Your task to perform on an android device: check out phone information Image 0: 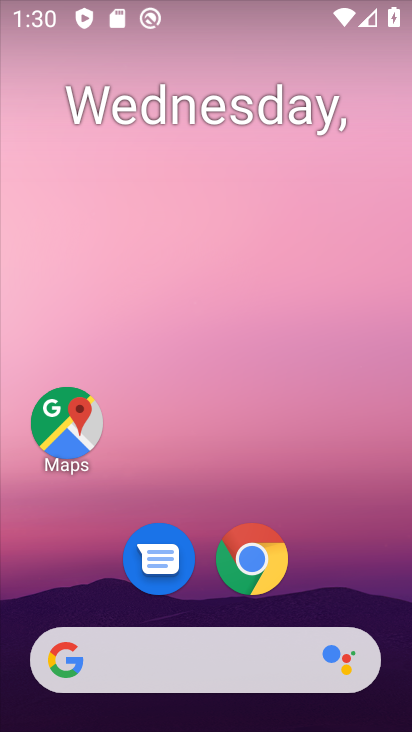
Step 0: drag from (221, 622) to (244, 152)
Your task to perform on an android device: check out phone information Image 1: 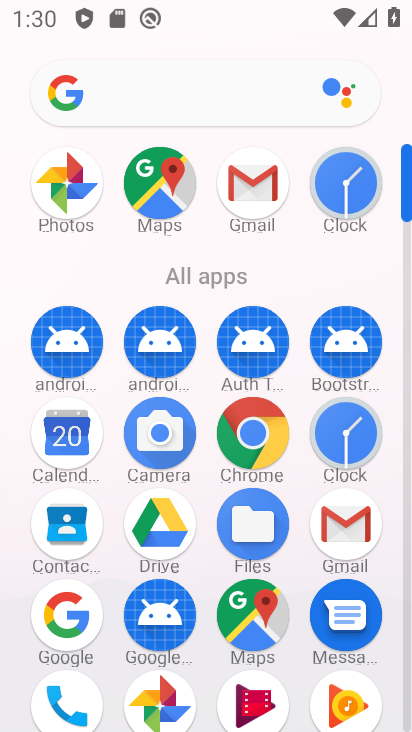
Step 1: drag from (223, 595) to (140, 5)
Your task to perform on an android device: check out phone information Image 2: 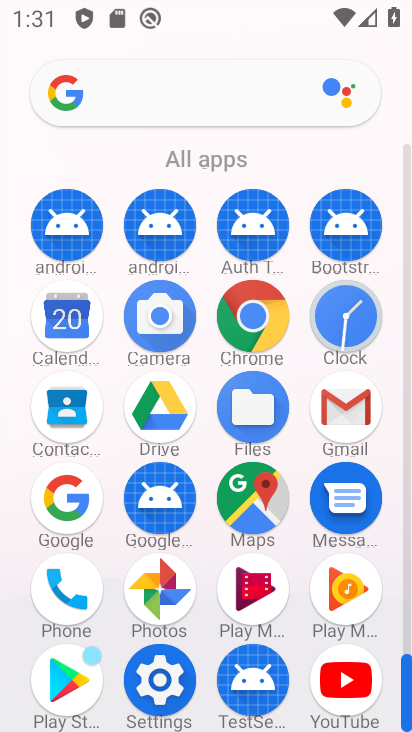
Step 2: click (182, 686)
Your task to perform on an android device: check out phone information Image 3: 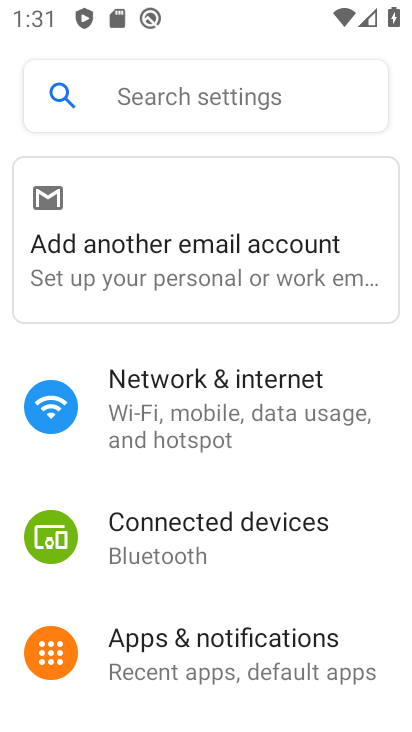
Step 3: drag from (228, 650) to (180, 94)
Your task to perform on an android device: check out phone information Image 4: 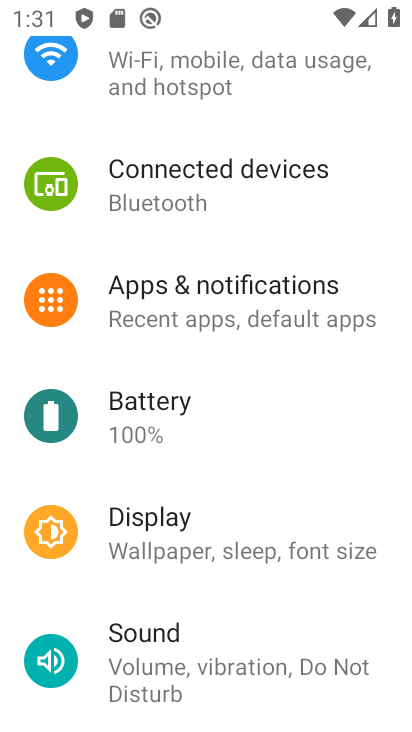
Step 4: drag from (187, 642) to (129, 101)
Your task to perform on an android device: check out phone information Image 5: 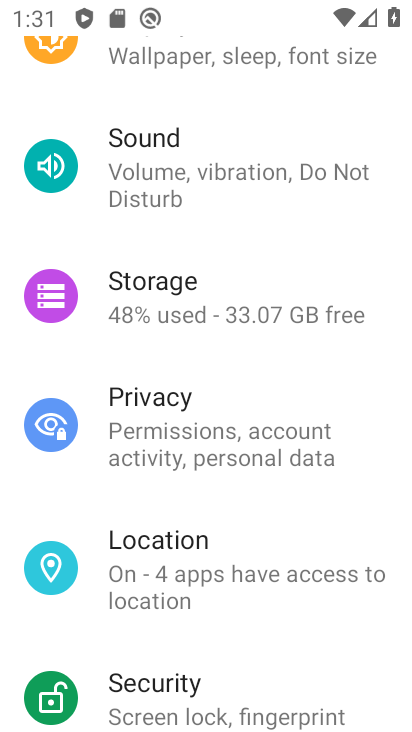
Step 5: drag from (220, 628) to (202, 210)
Your task to perform on an android device: check out phone information Image 6: 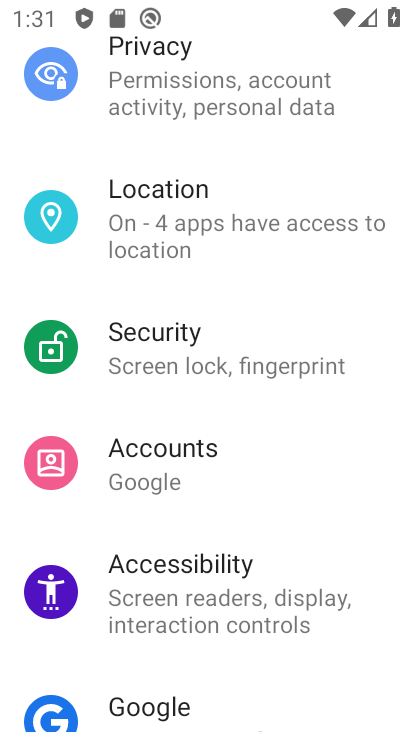
Step 6: drag from (222, 651) to (135, 27)
Your task to perform on an android device: check out phone information Image 7: 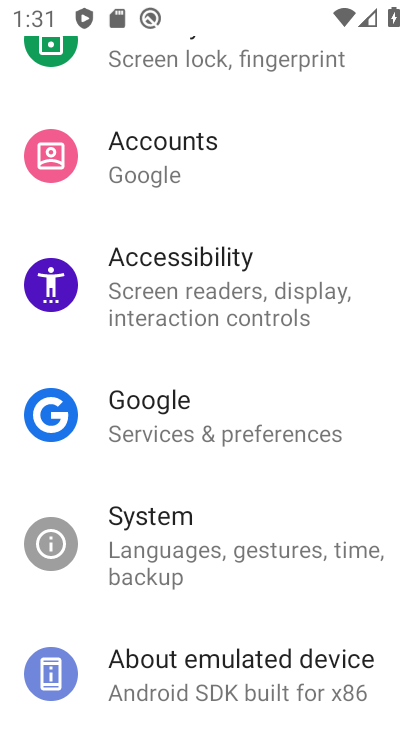
Step 7: click (210, 650)
Your task to perform on an android device: check out phone information Image 8: 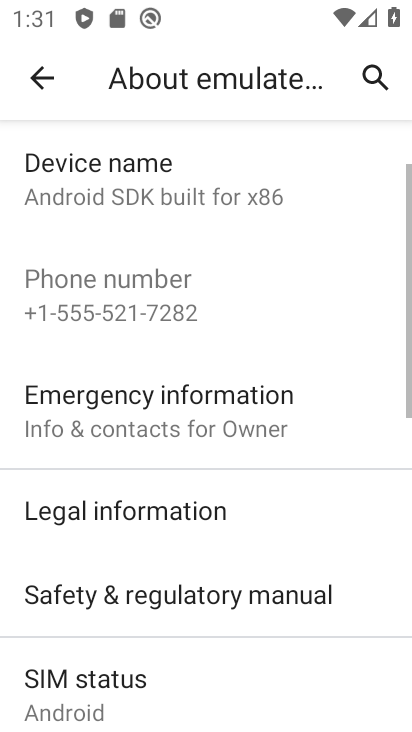
Step 8: task complete